Your task to perform on an android device: Open accessibility settings Image 0: 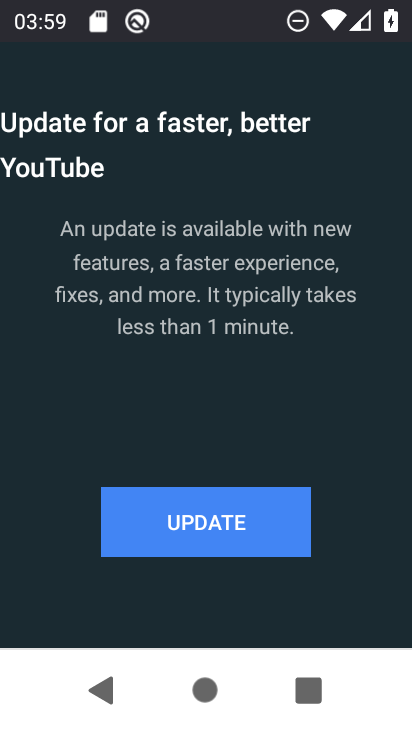
Step 0: press home button
Your task to perform on an android device: Open accessibility settings Image 1: 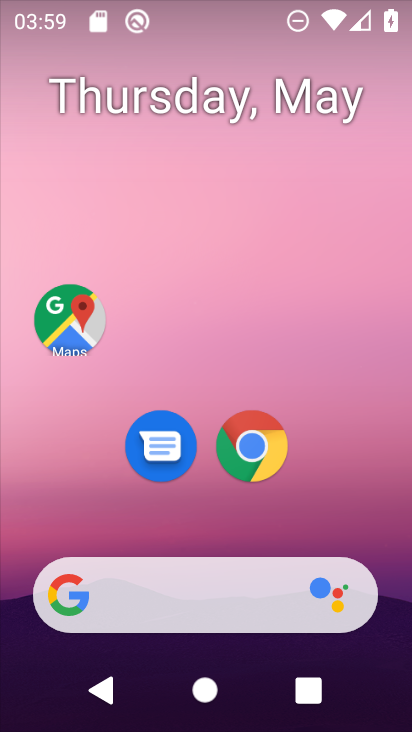
Step 1: drag from (335, 540) to (350, 24)
Your task to perform on an android device: Open accessibility settings Image 2: 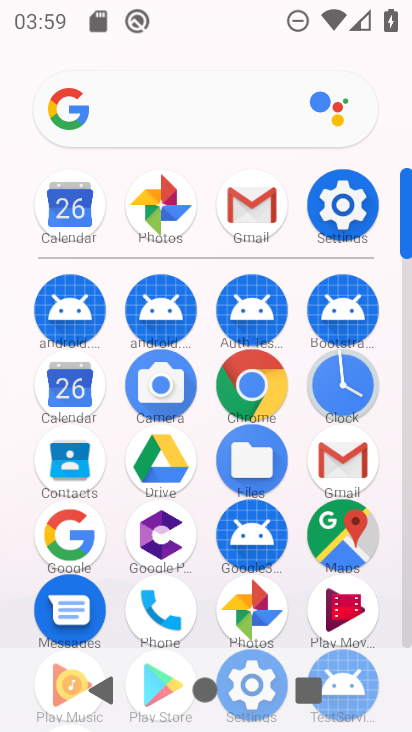
Step 2: click (338, 201)
Your task to perform on an android device: Open accessibility settings Image 3: 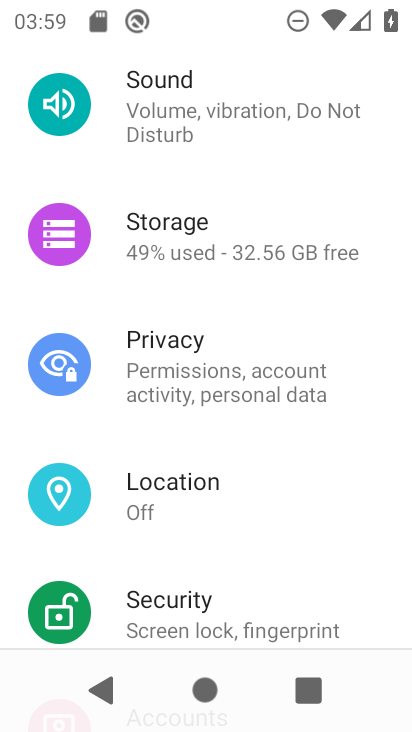
Step 3: drag from (289, 488) to (289, 160)
Your task to perform on an android device: Open accessibility settings Image 4: 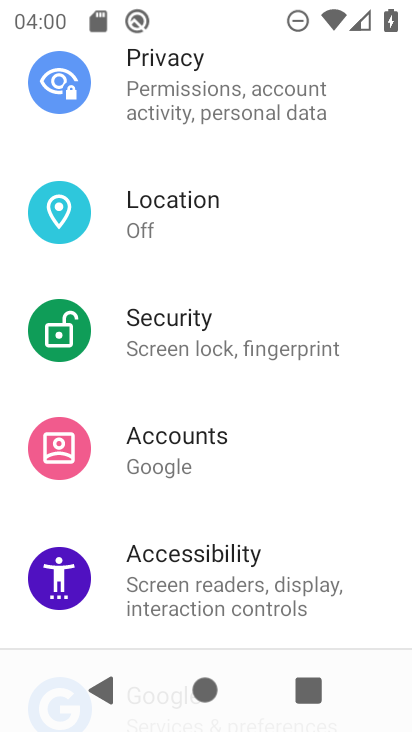
Step 4: drag from (286, 521) to (286, 236)
Your task to perform on an android device: Open accessibility settings Image 5: 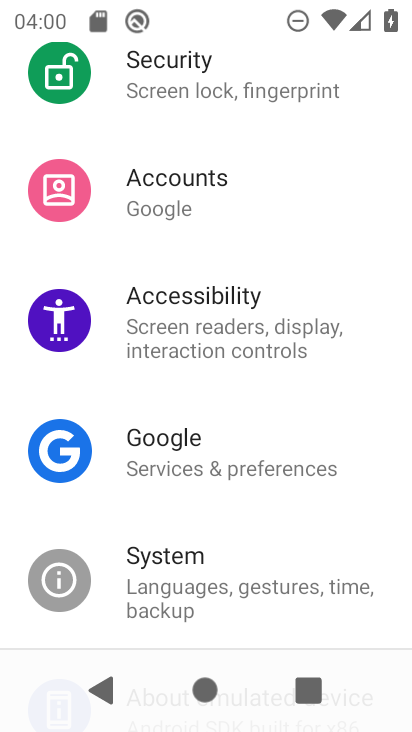
Step 5: click (201, 325)
Your task to perform on an android device: Open accessibility settings Image 6: 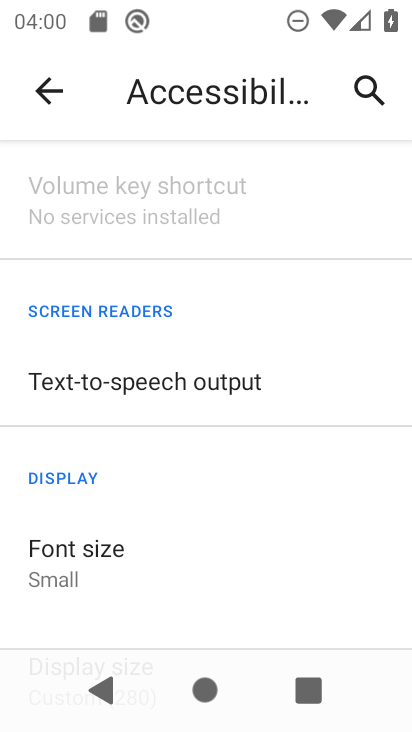
Step 6: task complete